Your task to perform on an android device: Clear all items from cart on costco.com. Search for "usb-c to usb-b" on costco.com, select the first entry, and add it to the cart. Image 0: 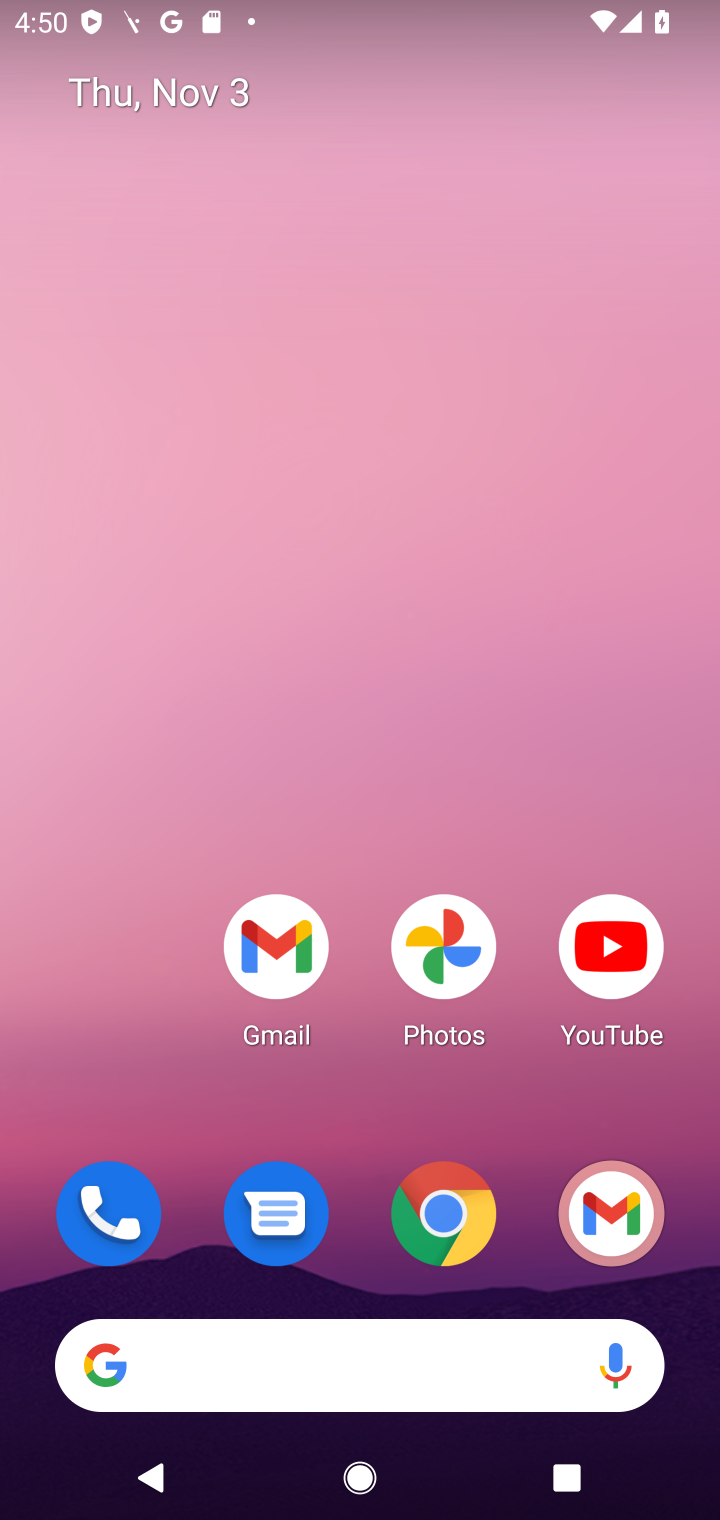
Step 0: click (455, 1229)
Your task to perform on an android device: Clear all items from cart on costco.com. Search for "usb-c to usb-b" on costco.com, select the first entry, and add it to the cart. Image 1: 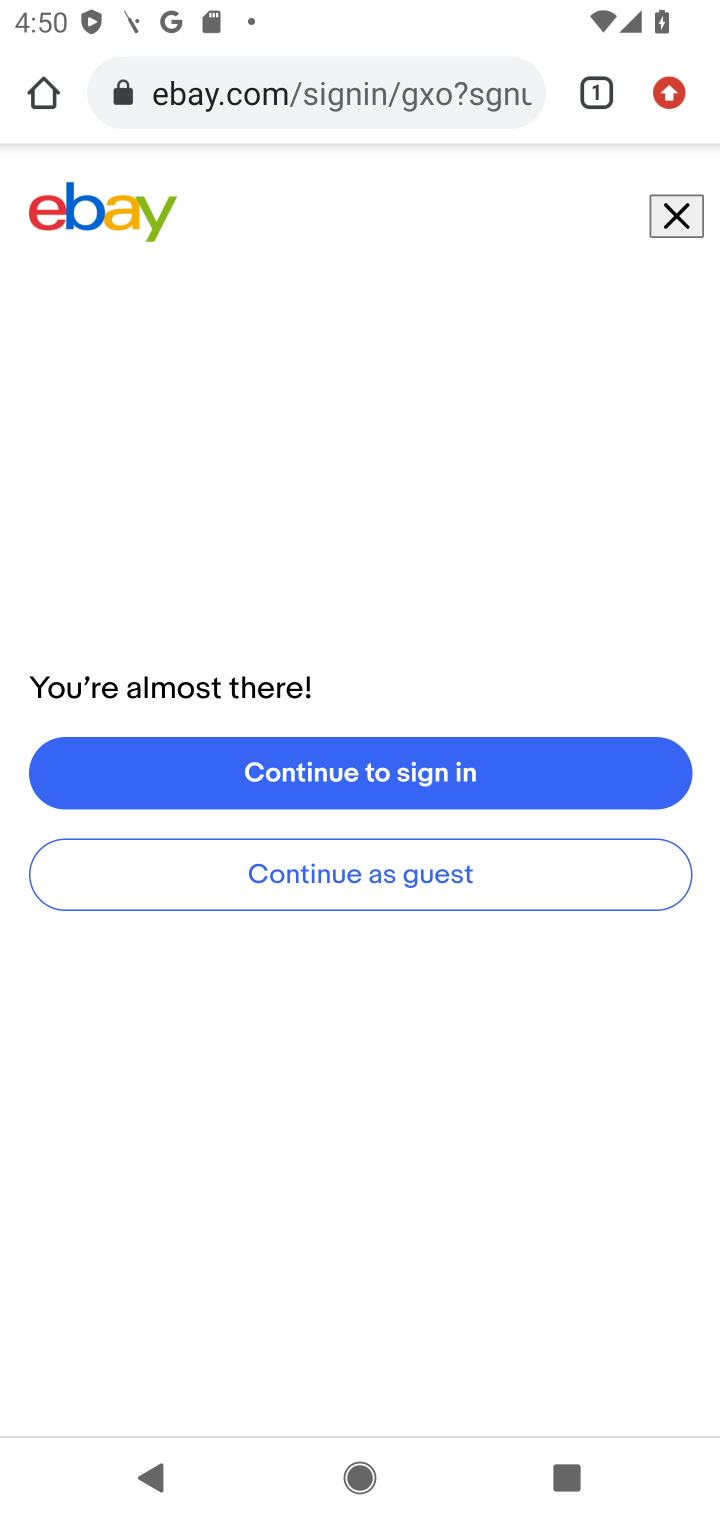
Step 1: click (349, 84)
Your task to perform on an android device: Clear all items from cart on costco.com. Search for "usb-c to usb-b" on costco.com, select the first entry, and add it to the cart. Image 2: 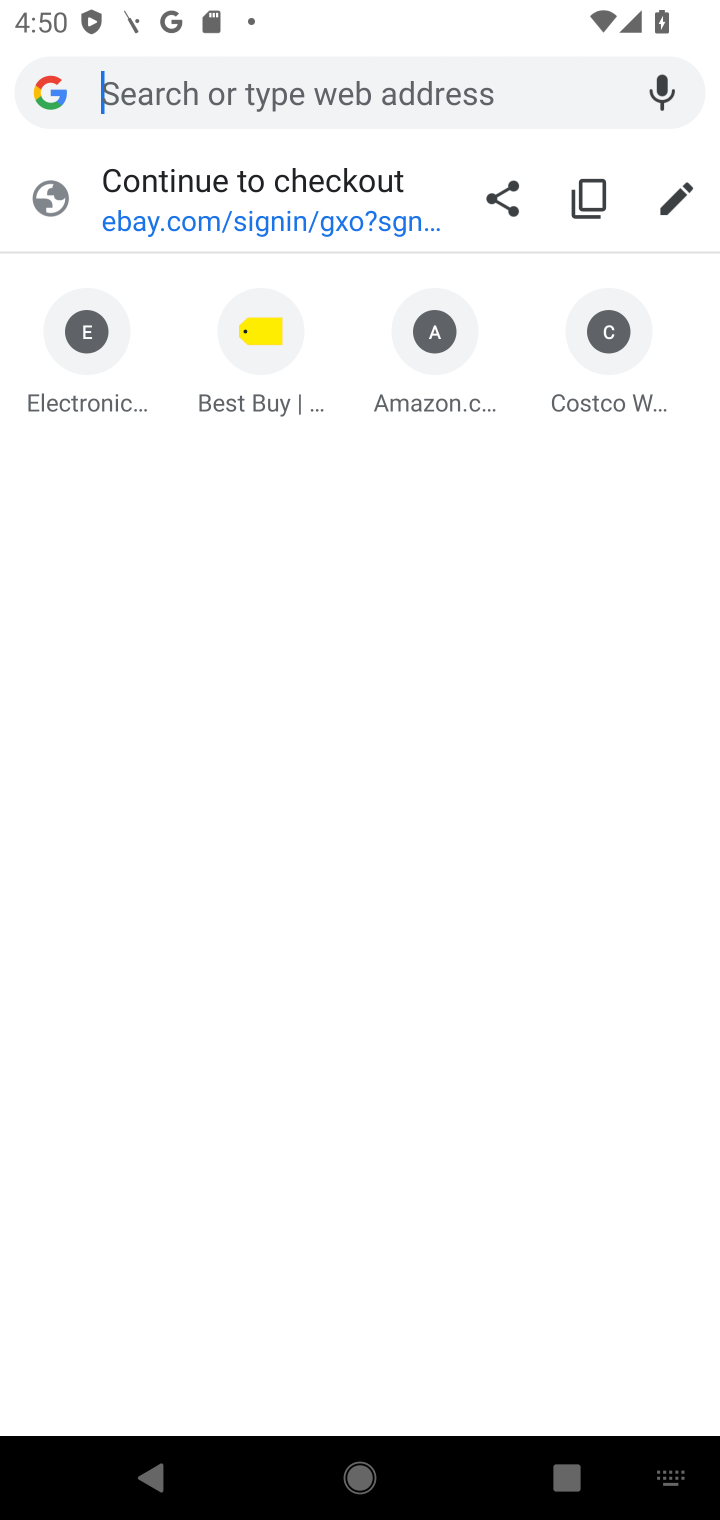
Step 2: type "costco.com"
Your task to perform on an android device: Clear all items from cart on costco.com. Search for "usb-c to usb-b" on costco.com, select the first entry, and add it to the cart. Image 3: 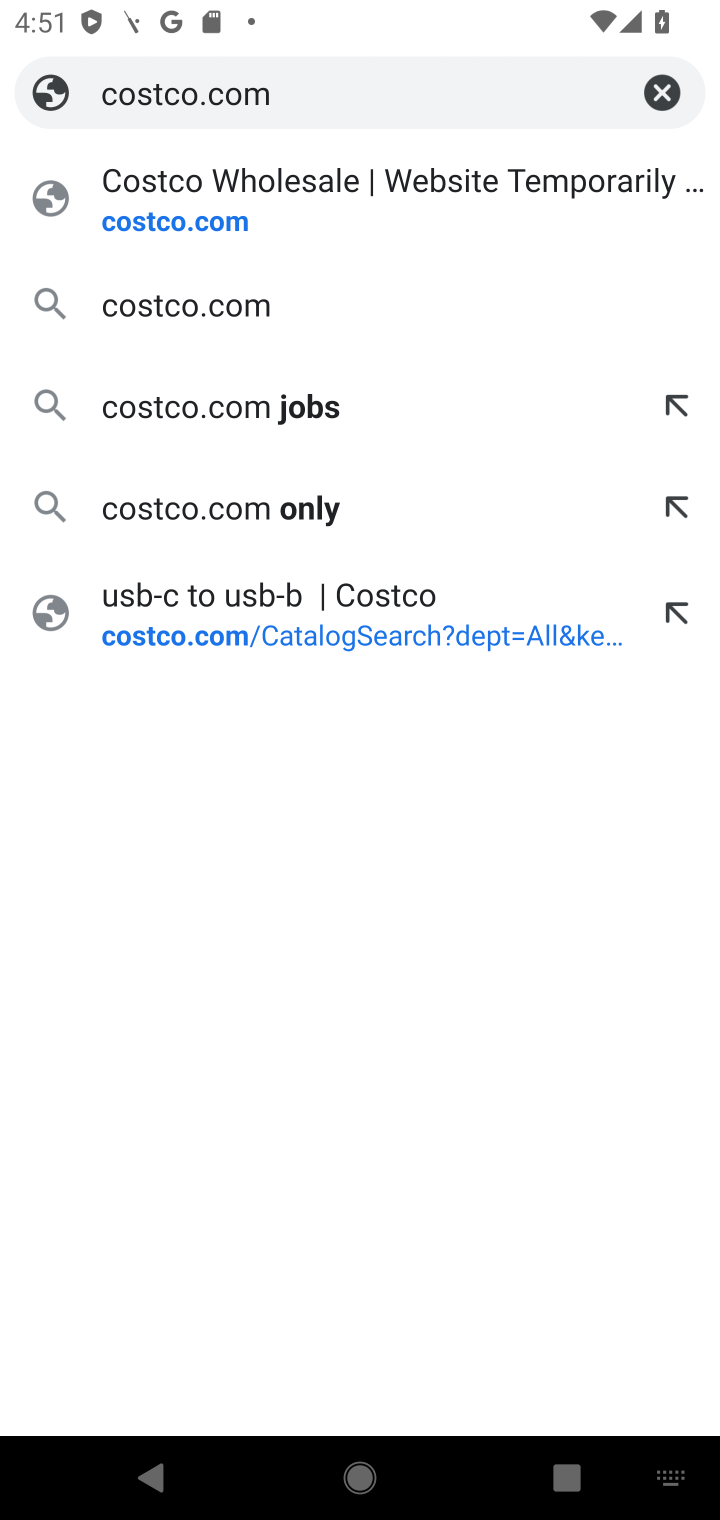
Step 3: click (117, 240)
Your task to perform on an android device: Clear all items from cart on costco.com. Search for "usb-c to usb-b" on costco.com, select the first entry, and add it to the cart. Image 4: 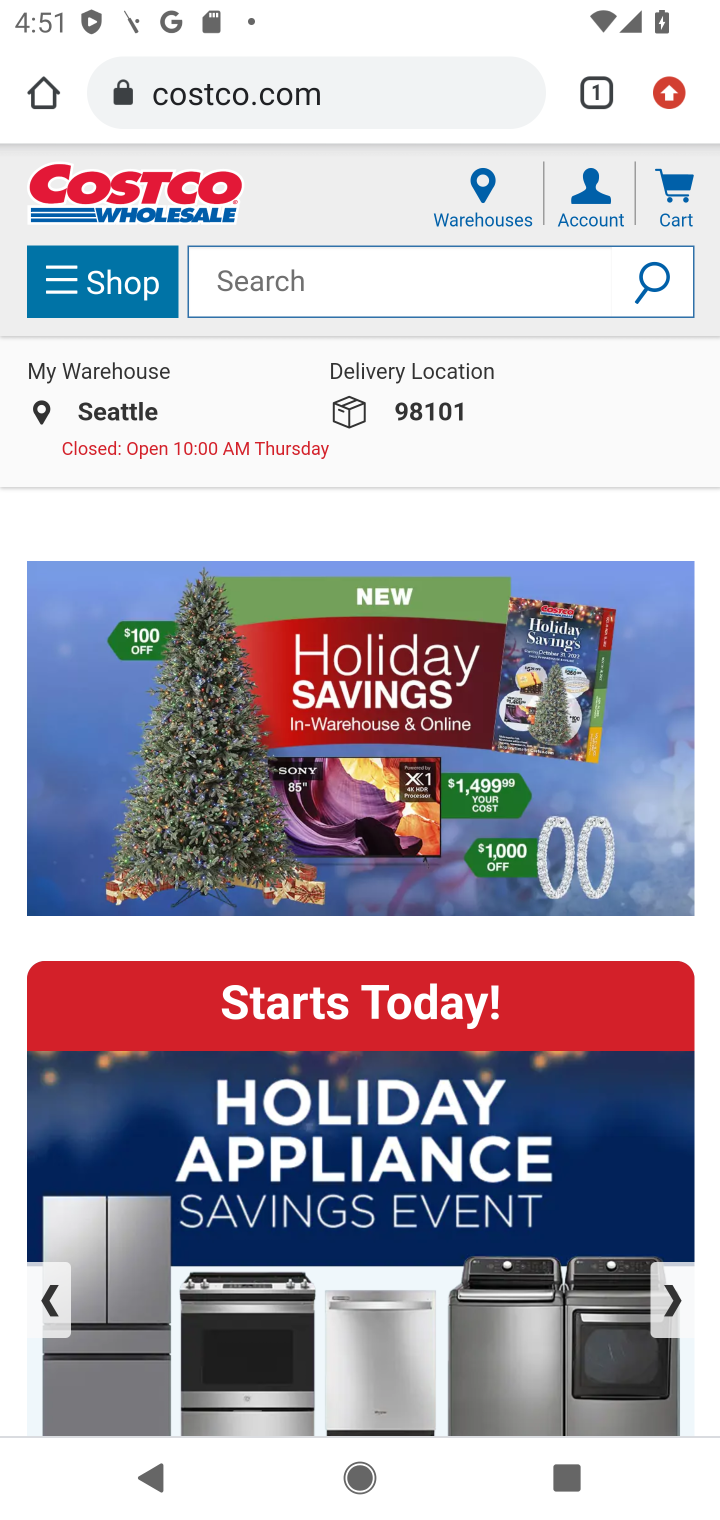
Step 4: click (670, 203)
Your task to perform on an android device: Clear all items from cart on costco.com. Search for "usb-c to usb-b" on costco.com, select the first entry, and add it to the cart. Image 5: 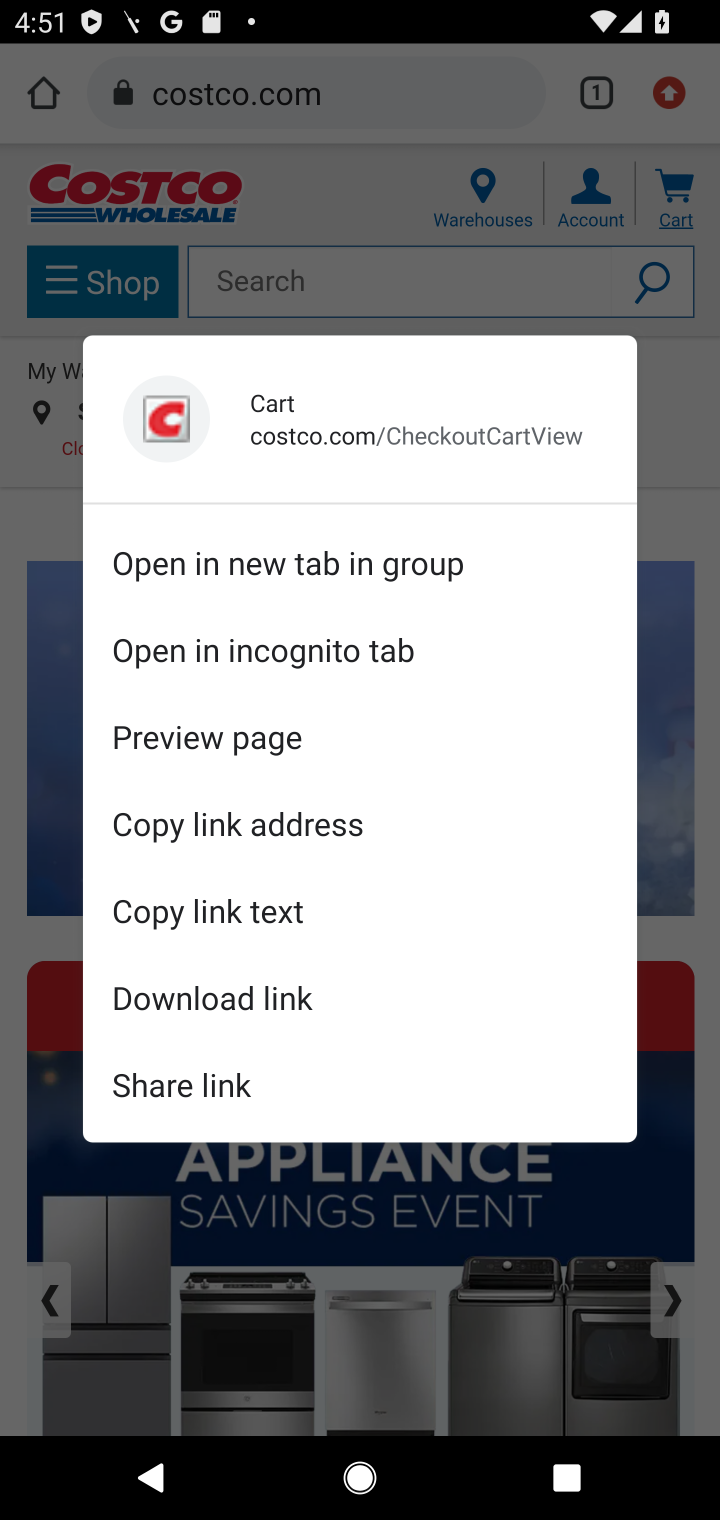
Step 5: click (670, 203)
Your task to perform on an android device: Clear all items from cart on costco.com. Search for "usb-c to usb-b" on costco.com, select the first entry, and add it to the cart. Image 6: 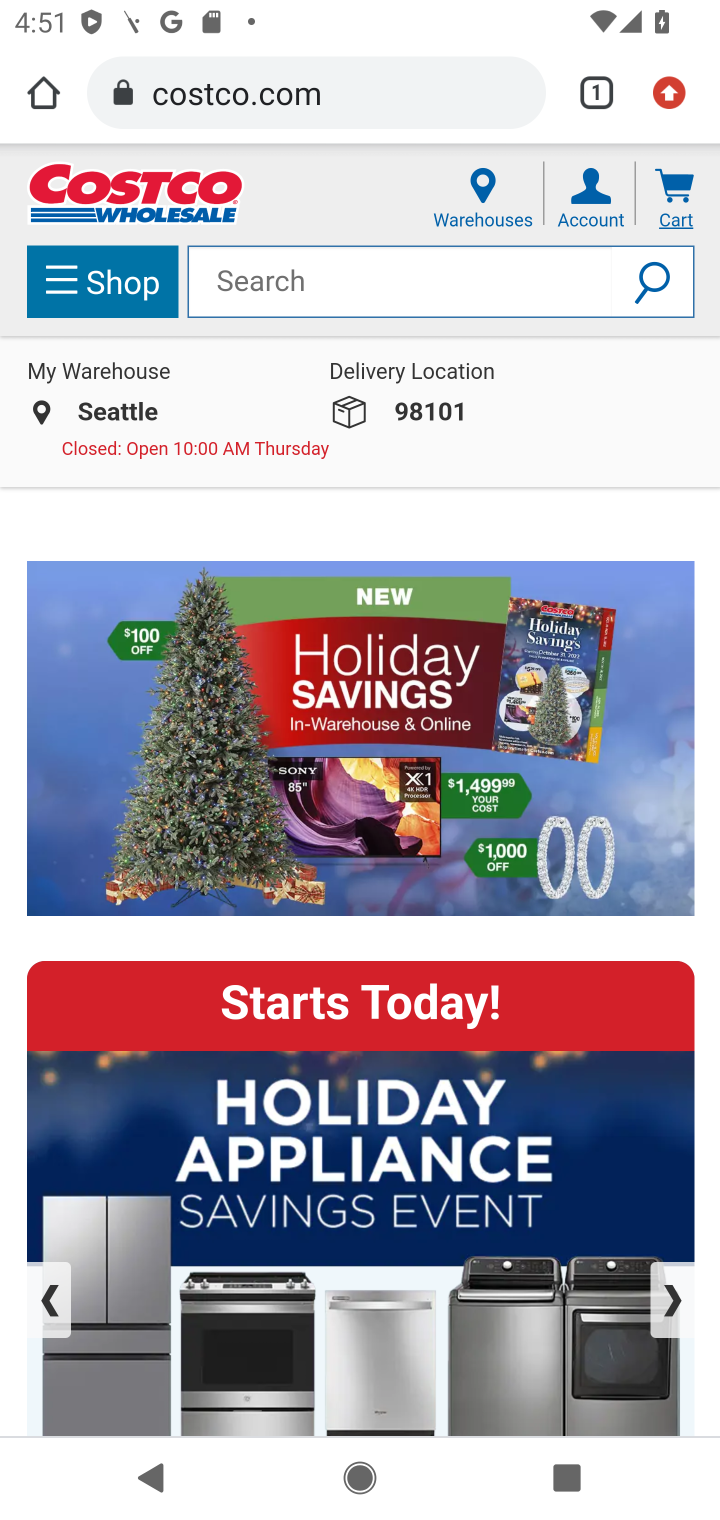
Step 6: click (678, 209)
Your task to perform on an android device: Clear all items from cart on costco.com. Search for "usb-c to usb-b" on costco.com, select the first entry, and add it to the cart. Image 7: 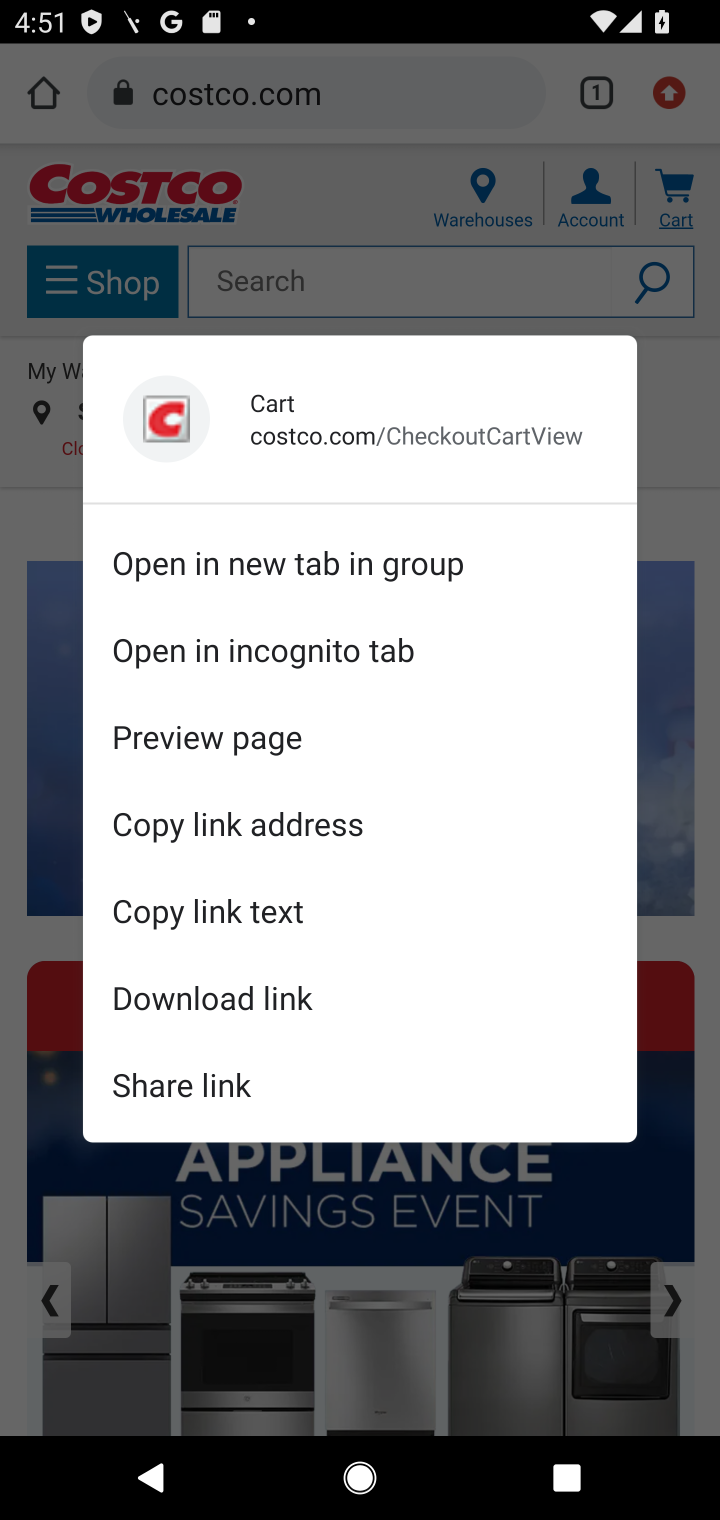
Step 7: click (680, 211)
Your task to perform on an android device: Clear all items from cart on costco.com. Search for "usb-c to usb-b" on costco.com, select the first entry, and add it to the cart. Image 8: 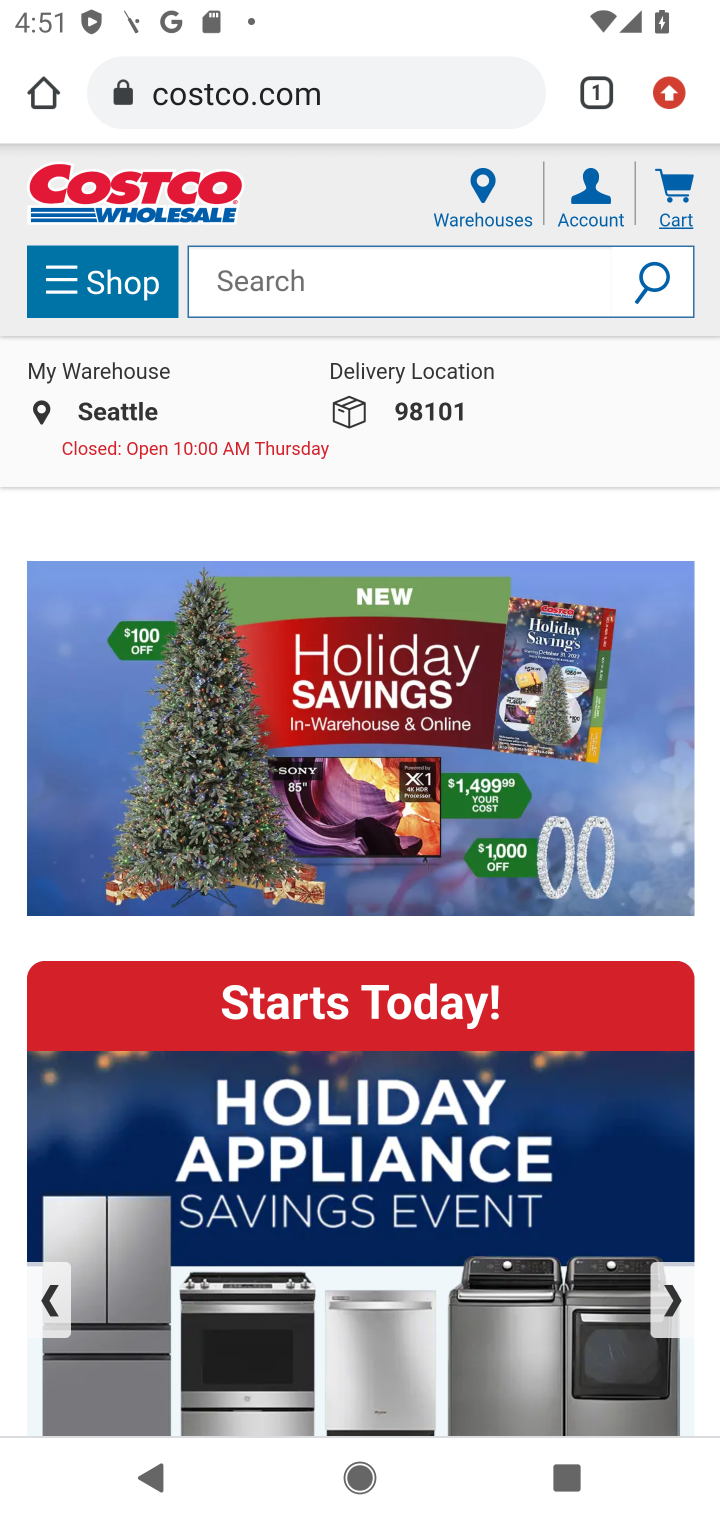
Step 8: click (685, 187)
Your task to perform on an android device: Clear all items from cart on costco.com. Search for "usb-c to usb-b" on costco.com, select the first entry, and add it to the cart. Image 9: 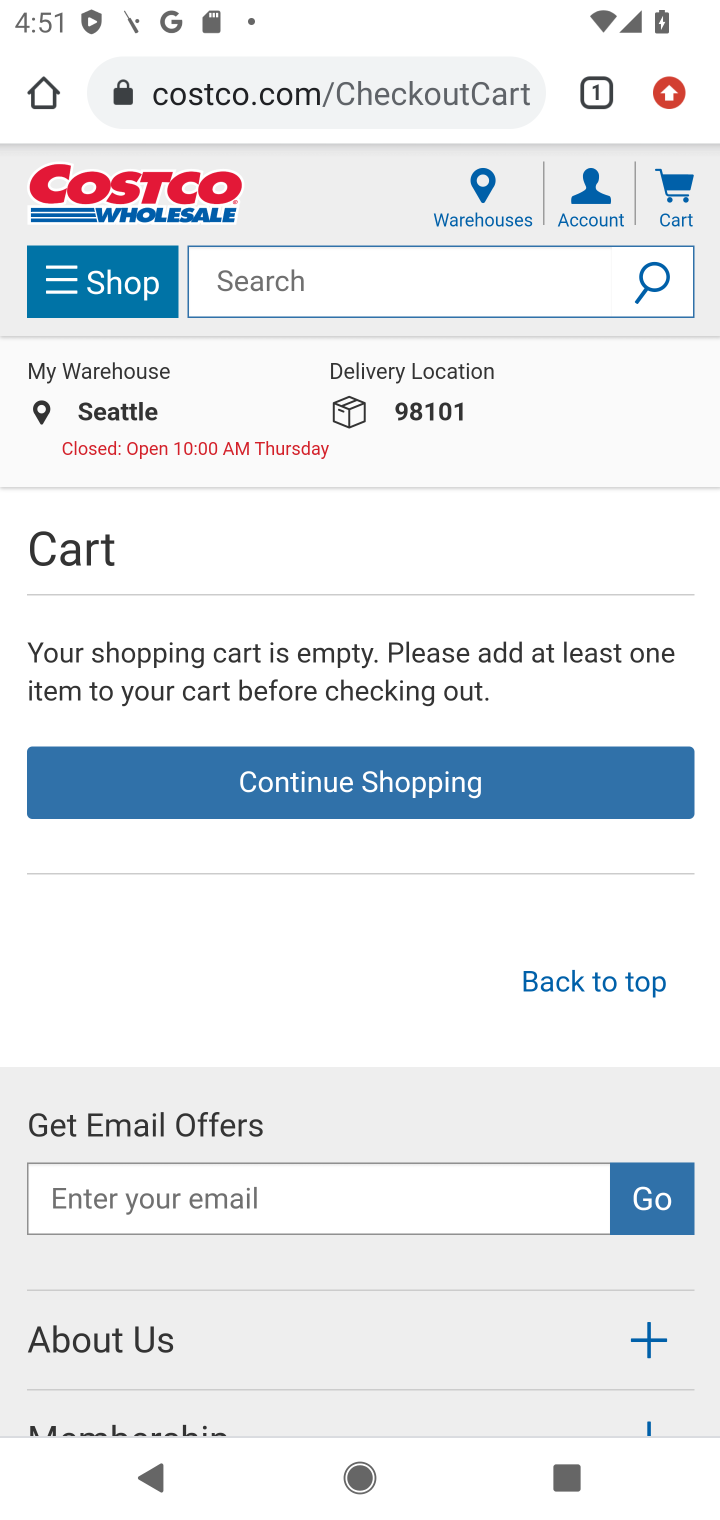
Step 9: click (337, 280)
Your task to perform on an android device: Clear all items from cart on costco.com. Search for "usb-c to usb-b" on costco.com, select the first entry, and add it to the cart. Image 10: 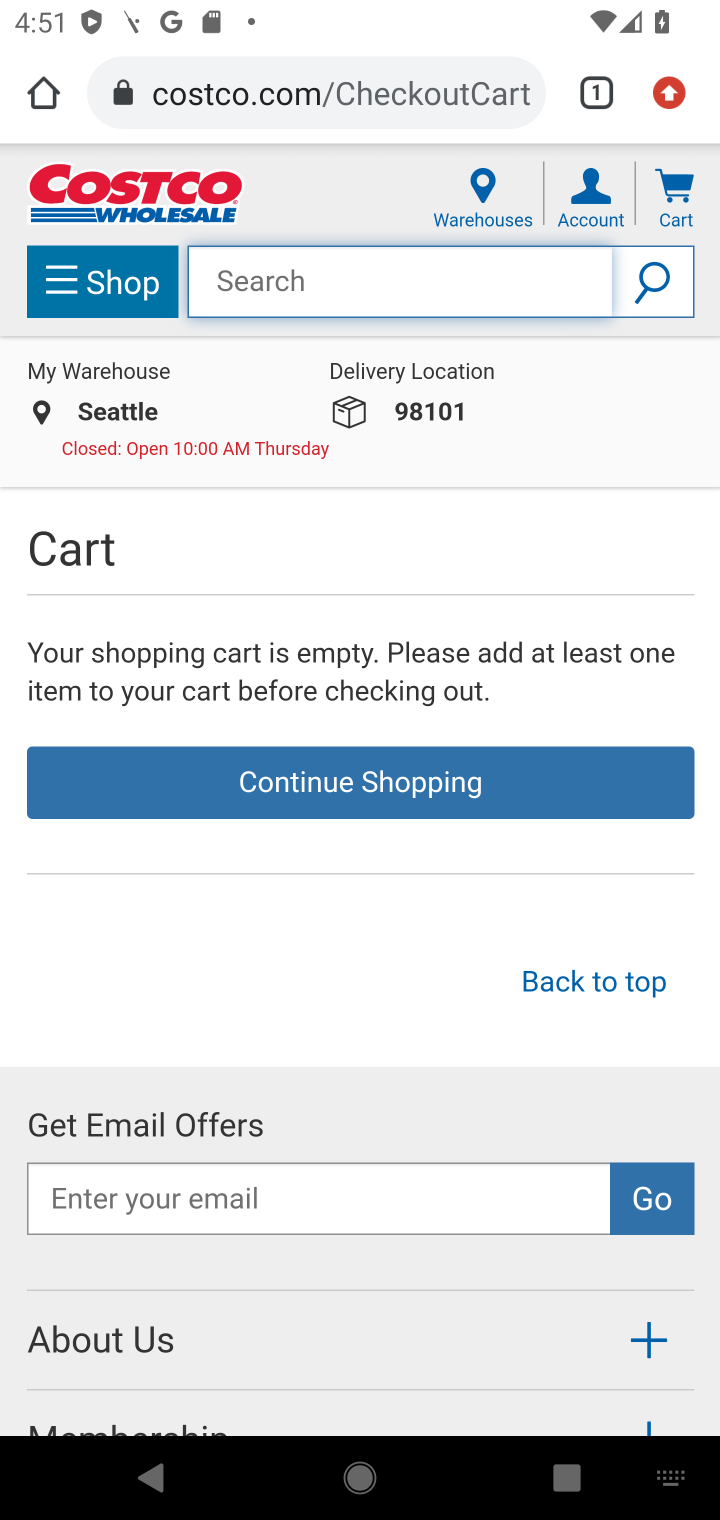
Step 10: type "usb-c to usb-b"
Your task to perform on an android device: Clear all items from cart on costco.com. Search for "usb-c to usb-b" on costco.com, select the first entry, and add it to the cart. Image 11: 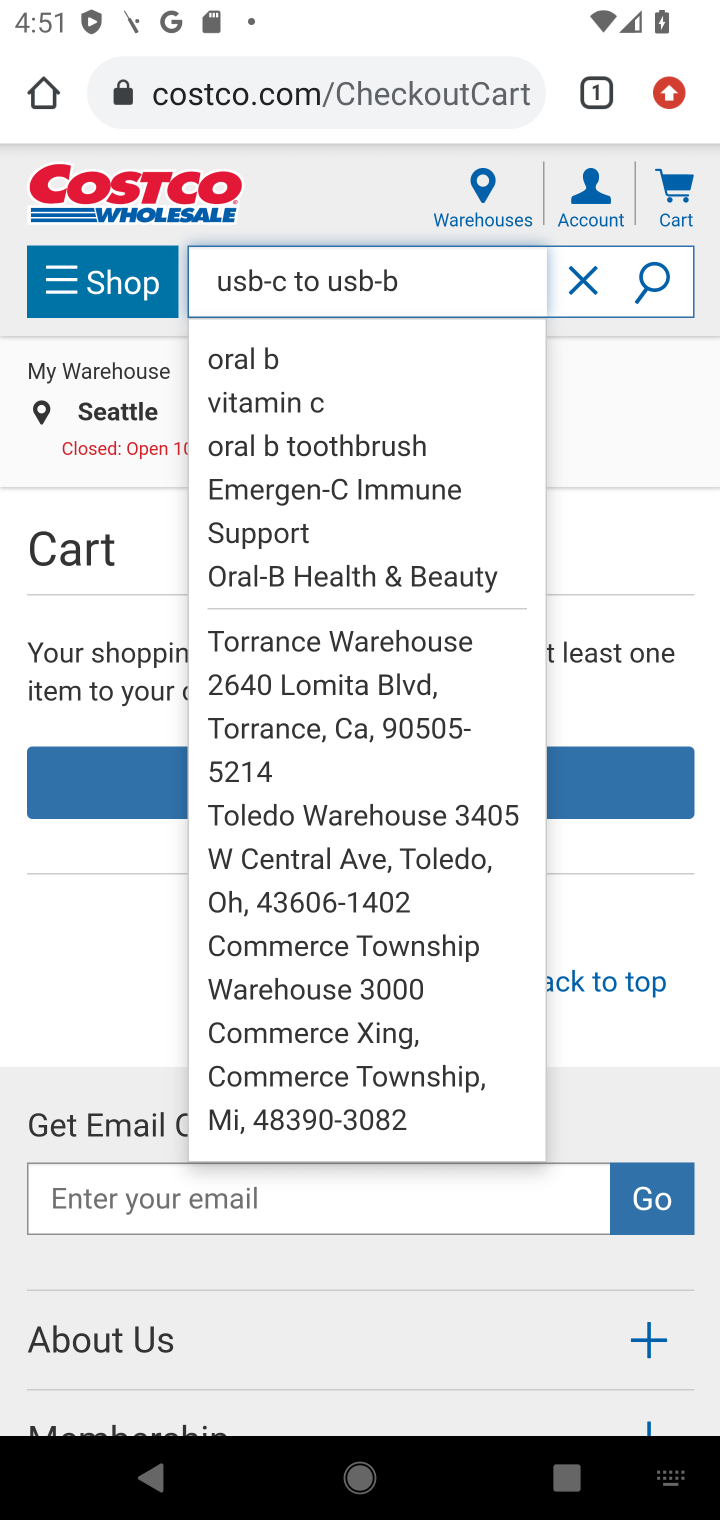
Step 11: click (646, 280)
Your task to perform on an android device: Clear all items from cart on costco.com. Search for "usb-c to usb-b" on costco.com, select the first entry, and add it to the cart. Image 12: 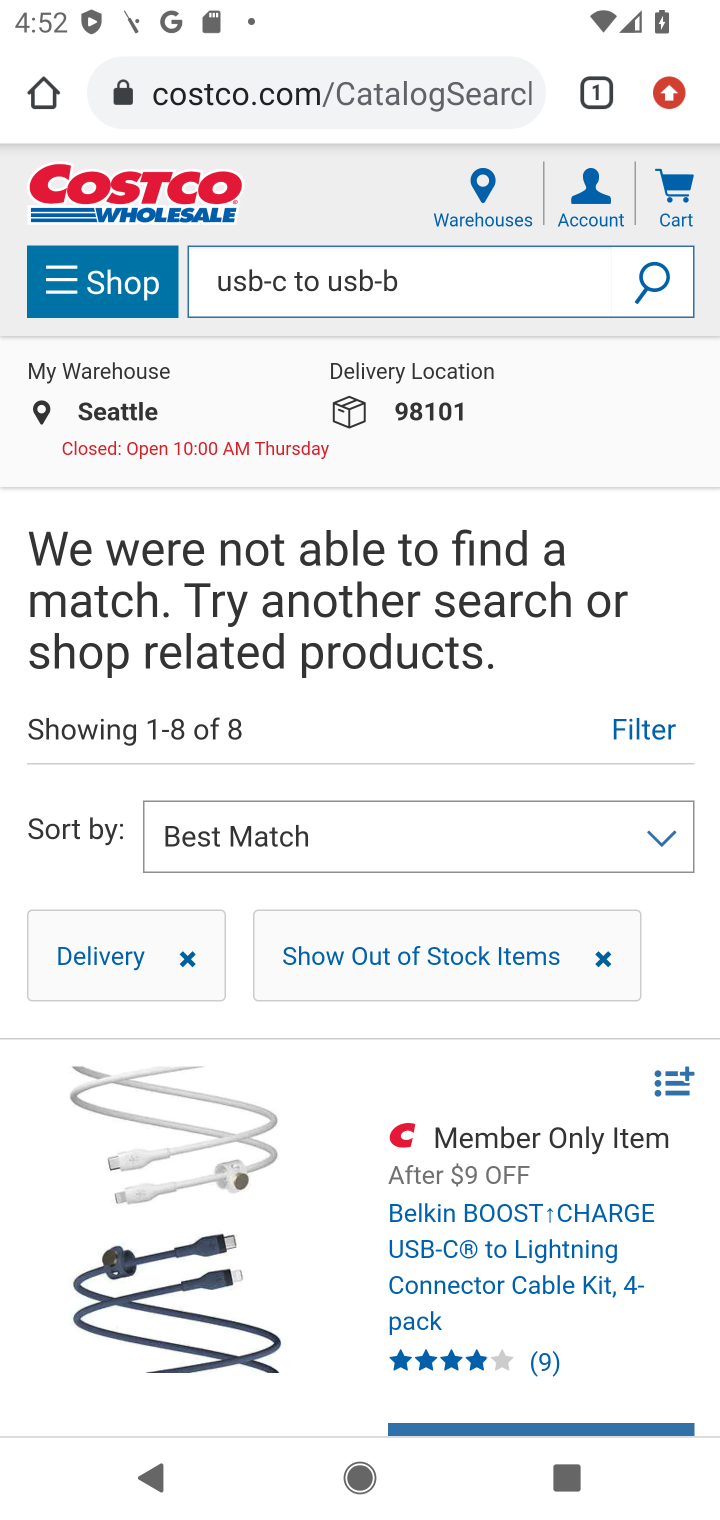
Step 12: task complete